Your task to perform on an android device: turn smart compose on in the gmail app Image 0: 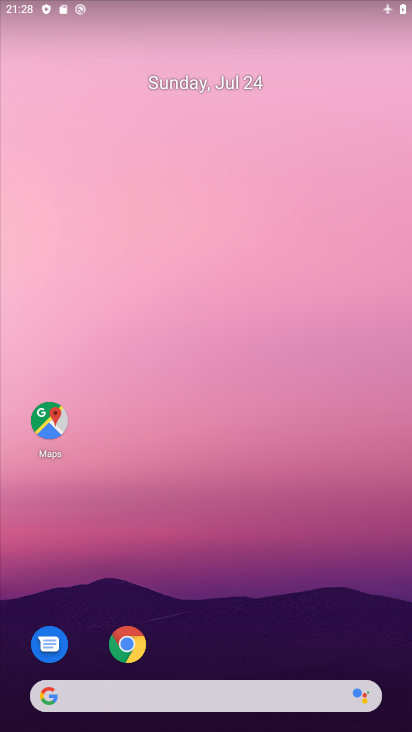
Step 0: drag from (390, 651) to (348, 121)
Your task to perform on an android device: turn smart compose on in the gmail app Image 1: 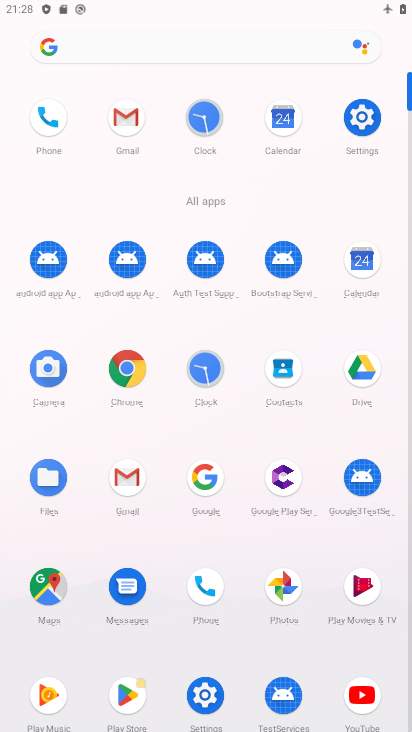
Step 1: click (124, 473)
Your task to perform on an android device: turn smart compose on in the gmail app Image 2: 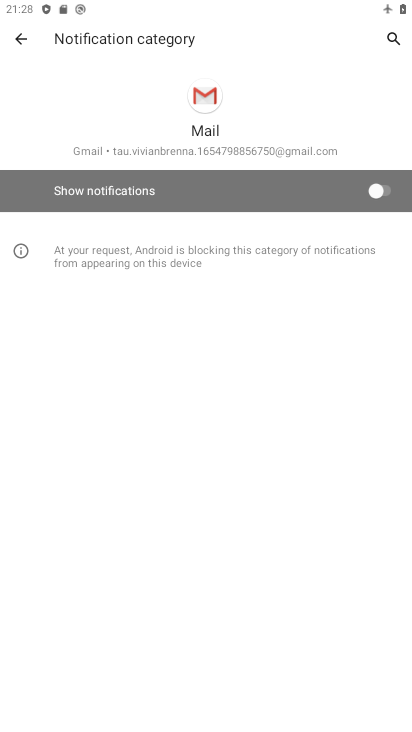
Step 2: task complete